Your task to perform on an android device: Go to calendar. Show me events next week Image 0: 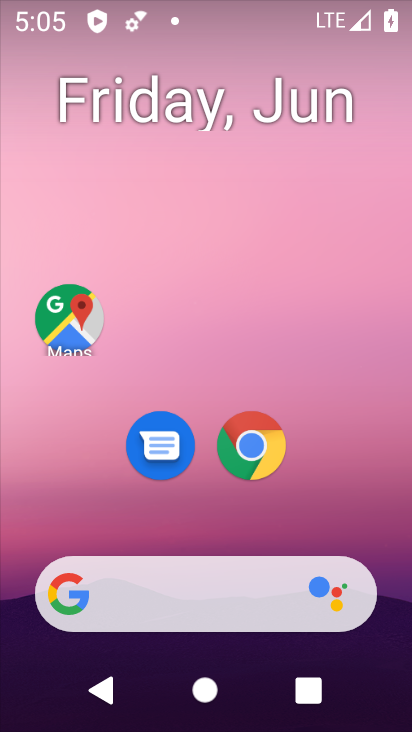
Step 0: drag from (405, 630) to (308, 46)
Your task to perform on an android device: Go to calendar. Show me events next week Image 1: 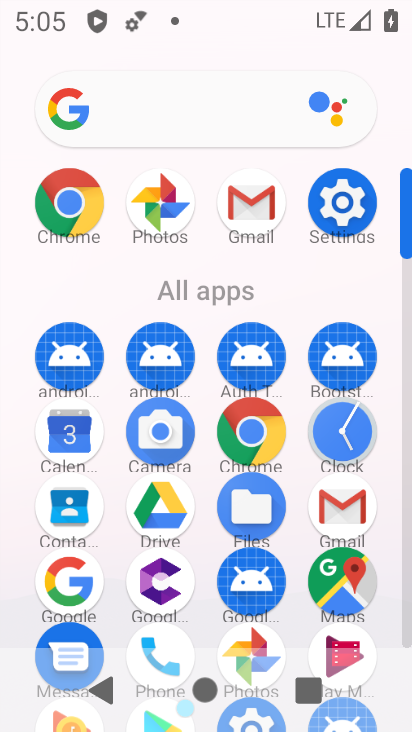
Step 1: drag from (11, 419) to (6, 197)
Your task to perform on an android device: Go to calendar. Show me events next week Image 2: 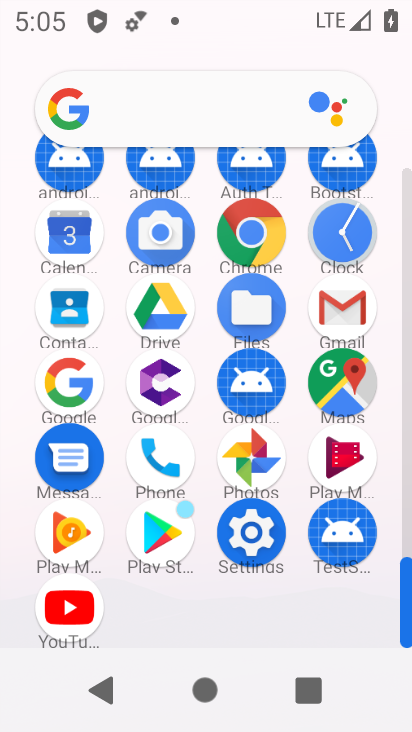
Step 2: click (68, 231)
Your task to perform on an android device: Go to calendar. Show me events next week Image 3: 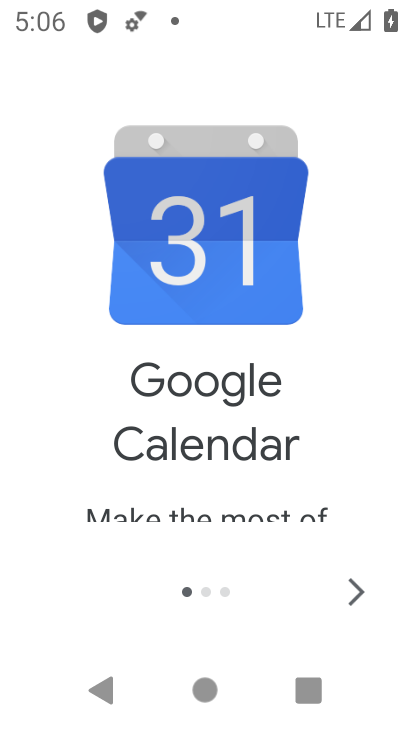
Step 3: click (362, 590)
Your task to perform on an android device: Go to calendar. Show me events next week Image 4: 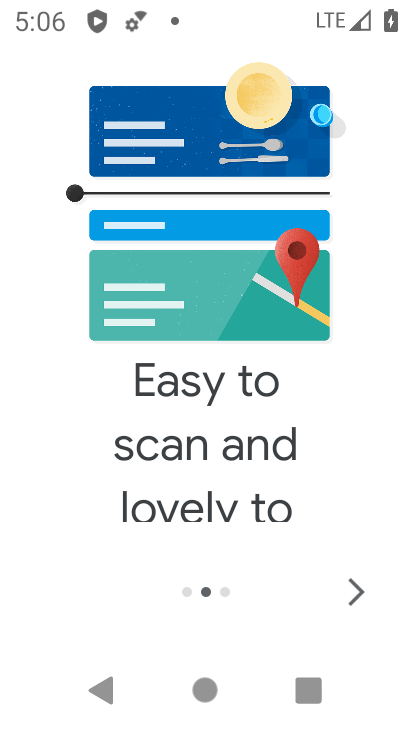
Step 4: click (361, 587)
Your task to perform on an android device: Go to calendar. Show me events next week Image 5: 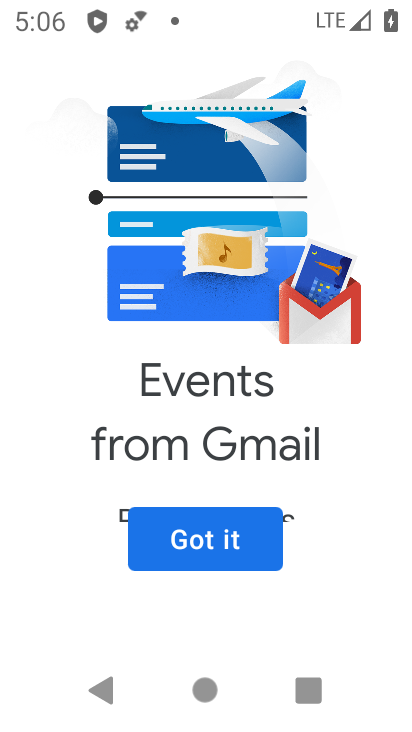
Step 5: click (256, 552)
Your task to perform on an android device: Go to calendar. Show me events next week Image 6: 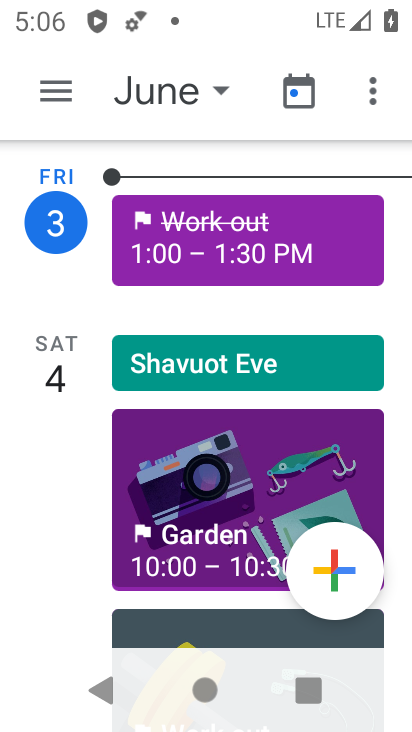
Step 6: click (45, 96)
Your task to perform on an android device: Go to calendar. Show me events next week Image 7: 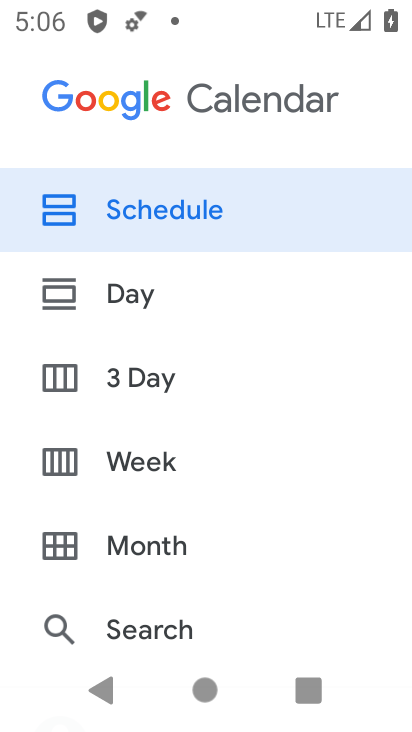
Step 7: click (128, 474)
Your task to perform on an android device: Go to calendar. Show me events next week Image 8: 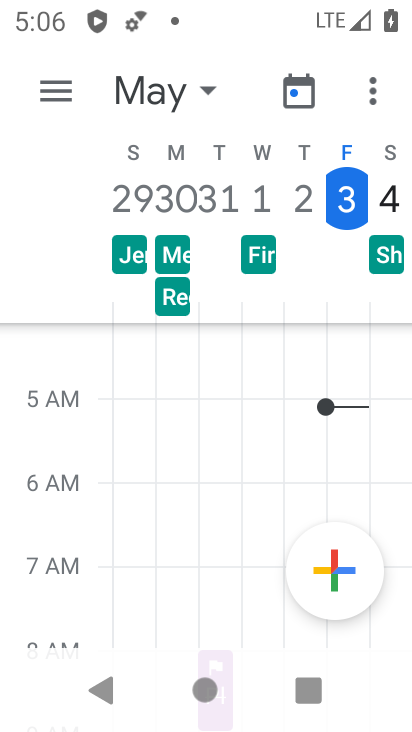
Step 8: task complete